Your task to perform on an android device: Open the calendar and show me this week's events? Image 0: 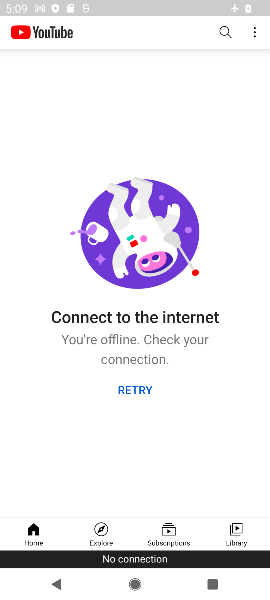
Step 0: press home button
Your task to perform on an android device: Open the calendar and show me this week's events? Image 1: 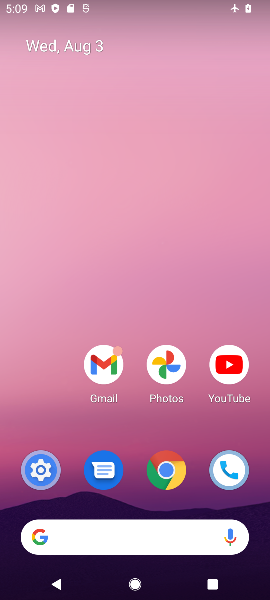
Step 1: drag from (127, 426) to (150, 45)
Your task to perform on an android device: Open the calendar and show me this week's events? Image 2: 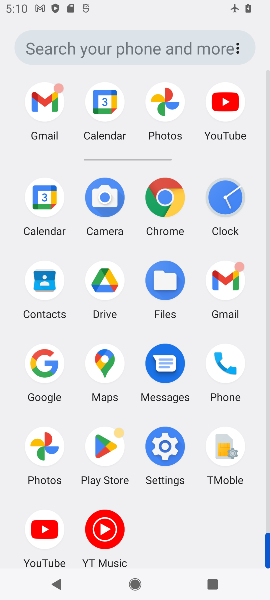
Step 2: click (43, 204)
Your task to perform on an android device: Open the calendar and show me this week's events? Image 3: 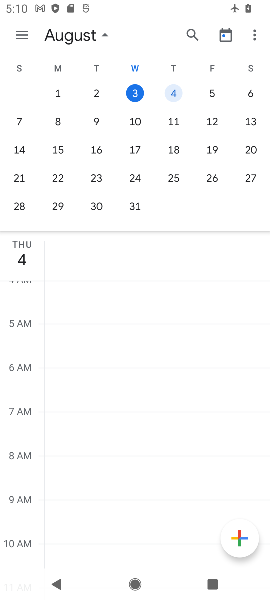
Step 3: click (29, 43)
Your task to perform on an android device: Open the calendar and show me this week's events? Image 4: 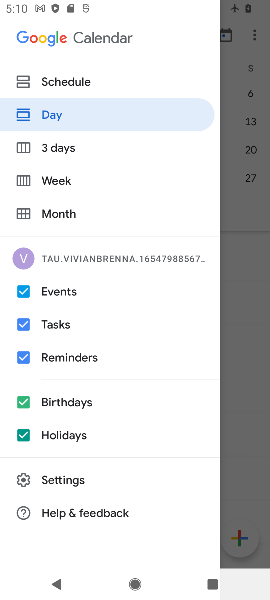
Step 4: click (58, 175)
Your task to perform on an android device: Open the calendar and show me this week's events? Image 5: 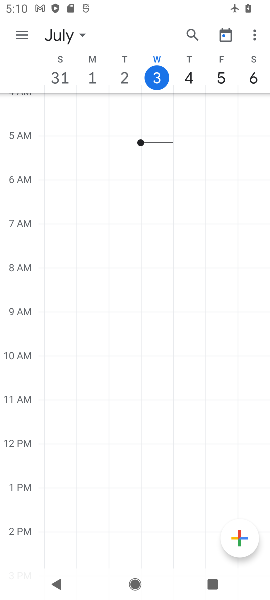
Step 5: task complete